Your task to perform on an android device: Open CNN.com Image 0: 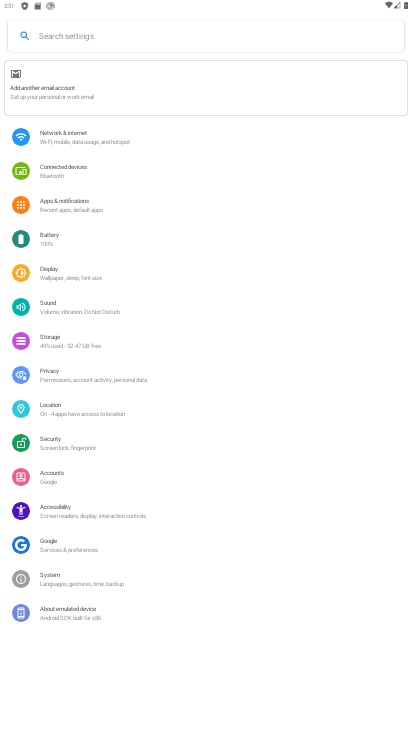
Step 0: press home button
Your task to perform on an android device: Open CNN.com Image 1: 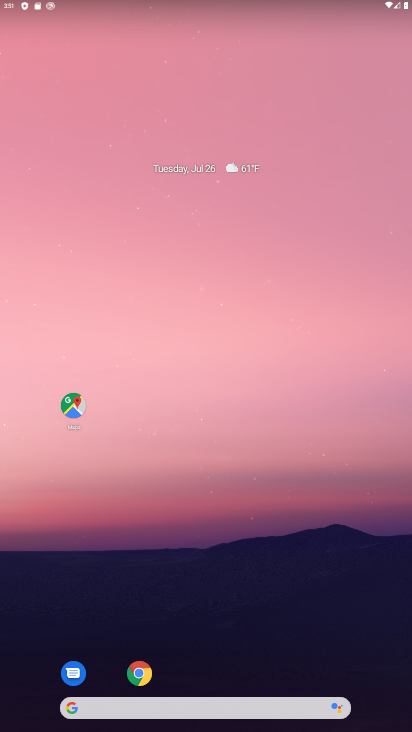
Step 1: click (136, 669)
Your task to perform on an android device: Open CNN.com Image 2: 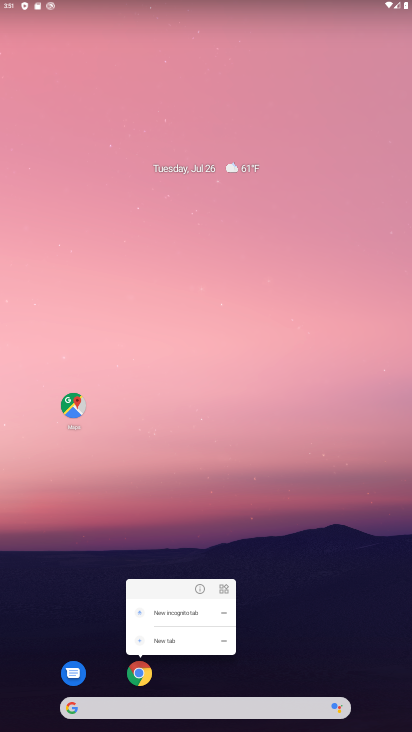
Step 2: click (138, 671)
Your task to perform on an android device: Open CNN.com Image 3: 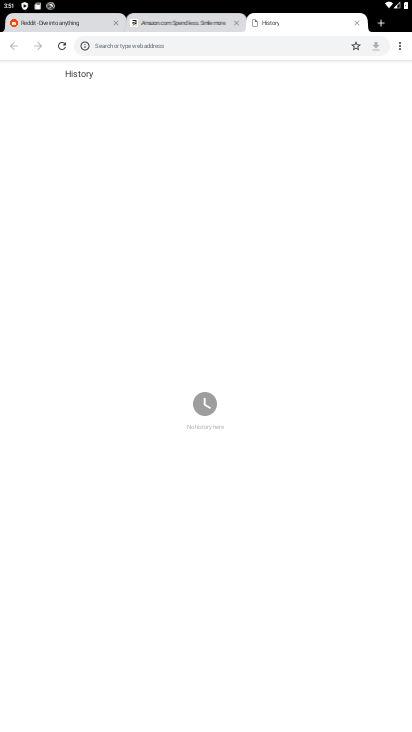
Step 3: click (380, 19)
Your task to perform on an android device: Open CNN.com Image 4: 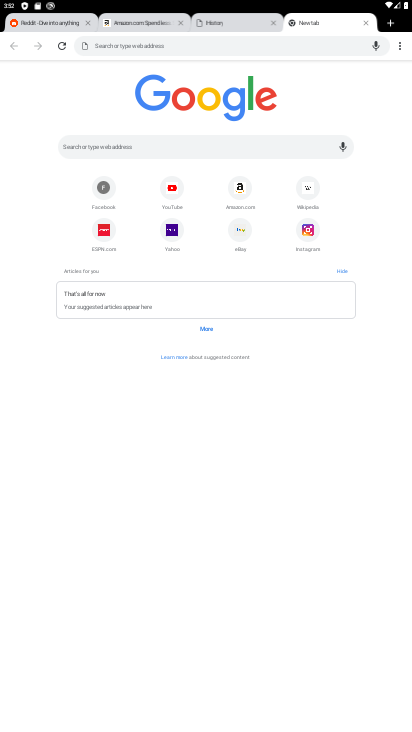
Step 4: type "cnn.com"
Your task to perform on an android device: Open CNN.com Image 5: 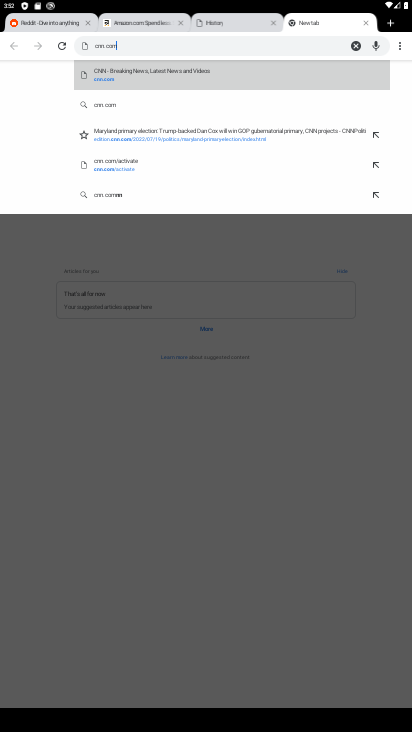
Step 5: click (127, 70)
Your task to perform on an android device: Open CNN.com Image 6: 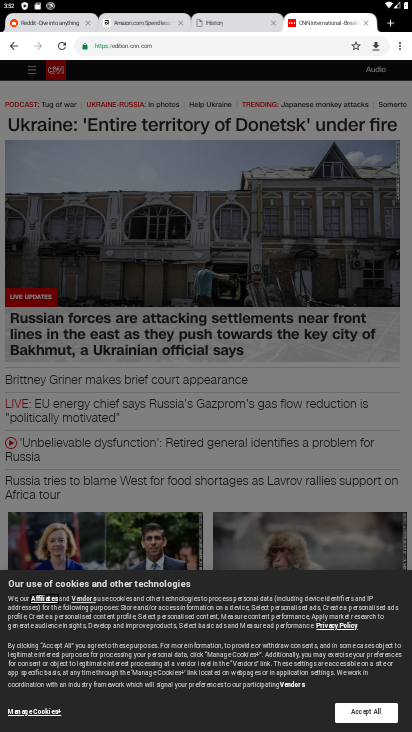
Step 6: click (368, 712)
Your task to perform on an android device: Open CNN.com Image 7: 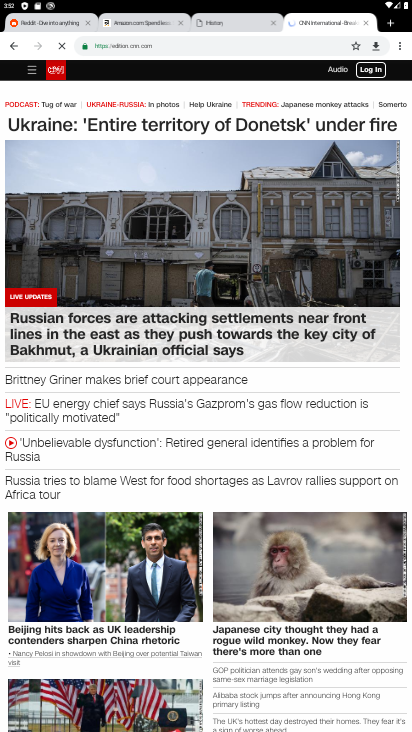
Step 7: task complete